Your task to perform on an android device: read, delete, or share a saved page in the chrome app Image 0: 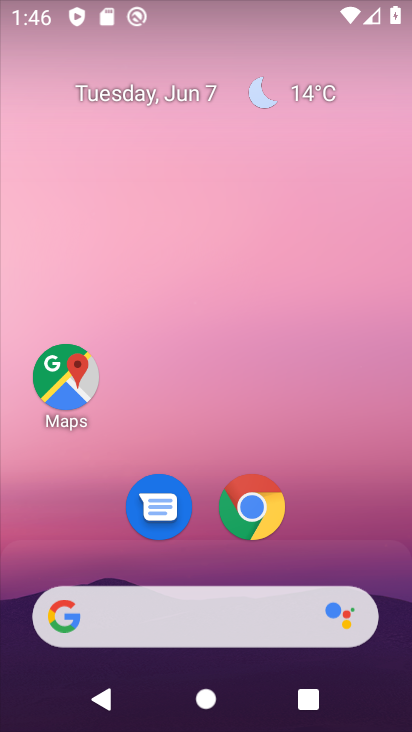
Step 0: click (255, 503)
Your task to perform on an android device: read, delete, or share a saved page in the chrome app Image 1: 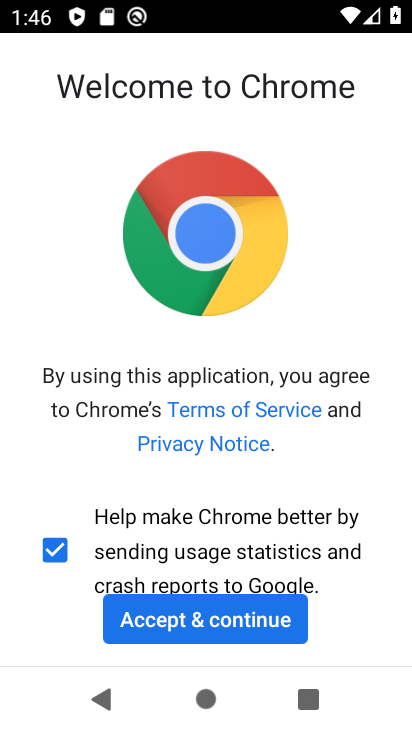
Step 1: click (211, 625)
Your task to perform on an android device: read, delete, or share a saved page in the chrome app Image 2: 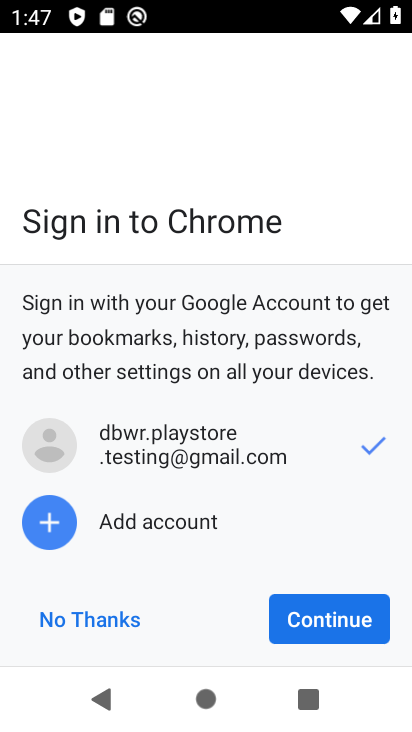
Step 2: click (290, 618)
Your task to perform on an android device: read, delete, or share a saved page in the chrome app Image 3: 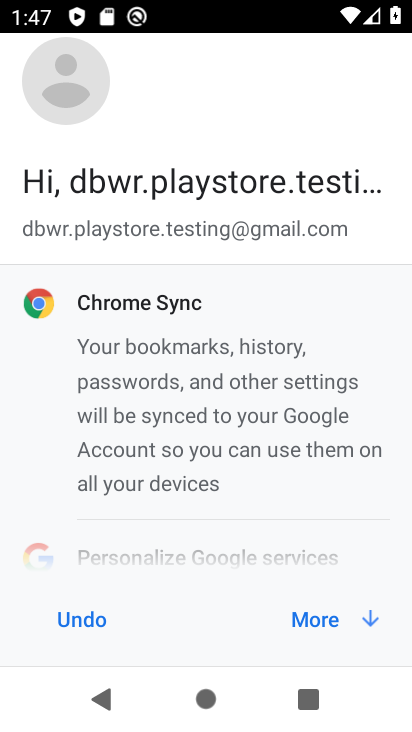
Step 3: click (290, 618)
Your task to perform on an android device: read, delete, or share a saved page in the chrome app Image 4: 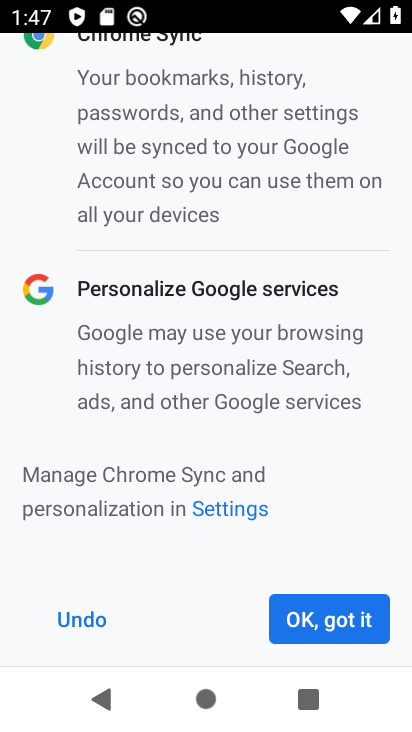
Step 4: click (290, 618)
Your task to perform on an android device: read, delete, or share a saved page in the chrome app Image 5: 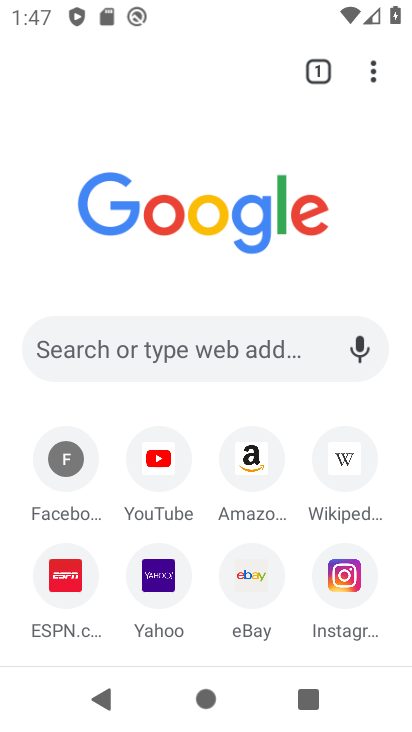
Step 5: task complete